Your task to perform on an android device: uninstall "Microsoft Excel" Image 0: 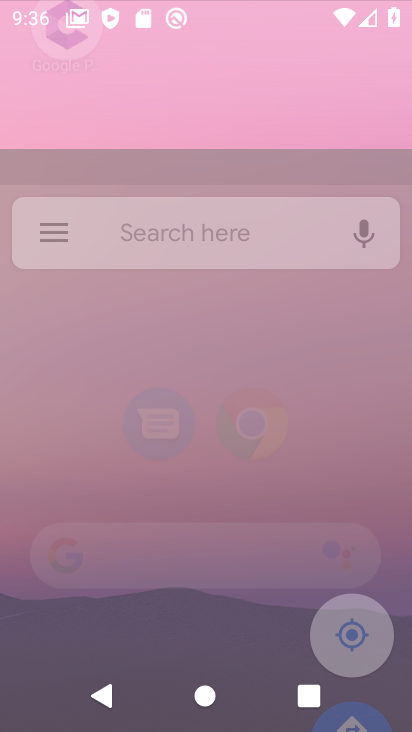
Step 0: click (352, 48)
Your task to perform on an android device: uninstall "Microsoft Excel" Image 1: 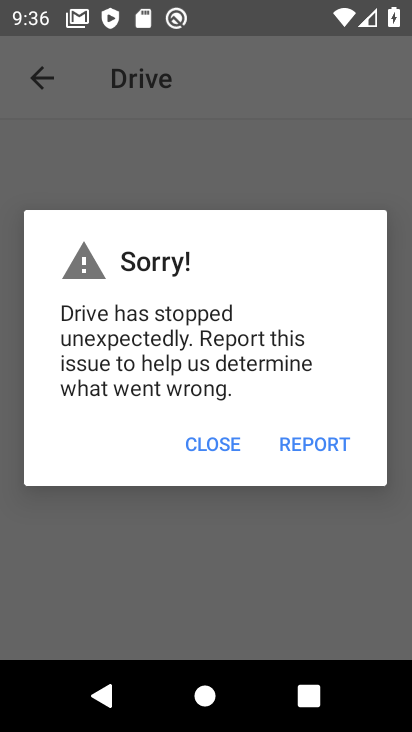
Step 1: drag from (130, 367) to (205, 63)
Your task to perform on an android device: uninstall "Microsoft Excel" Image 2: 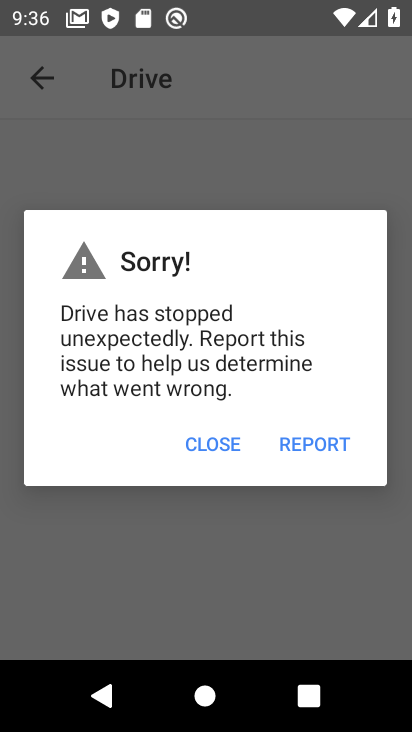
Step 2: drag from (175, 345) to (207, 139)
Your task to perform on an android device: uninstall "Microsoft Excel" Image 3: 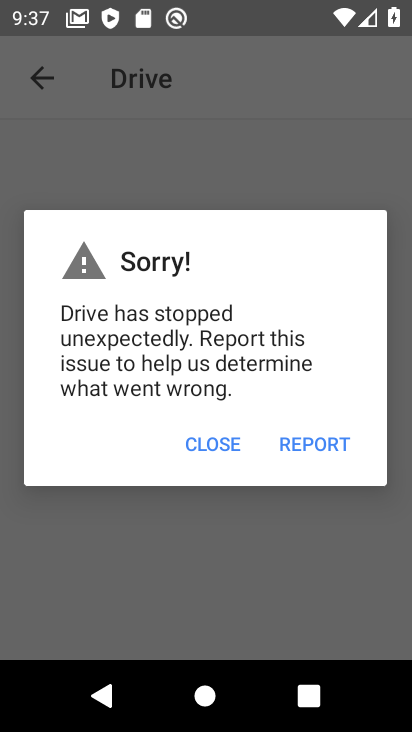
Step 3: drag from (224, 247) to (238, 134)
Your task to perform on an android device: uninstall "Microsoft Excel" Image 4: 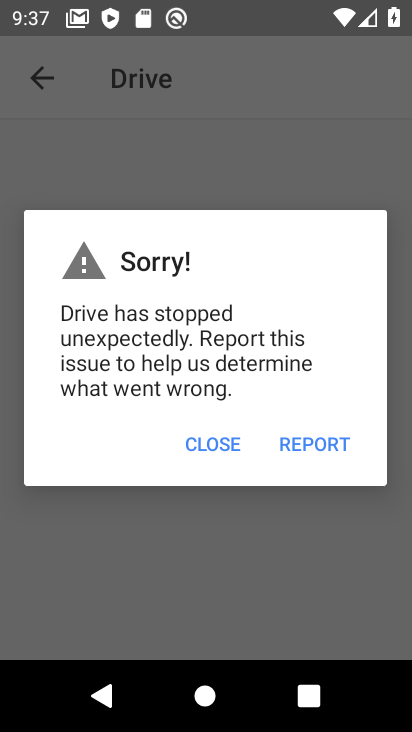
Step 4: press home button
Your task to perform on an android device: uninstall "Microsoft Excel" Image 5: 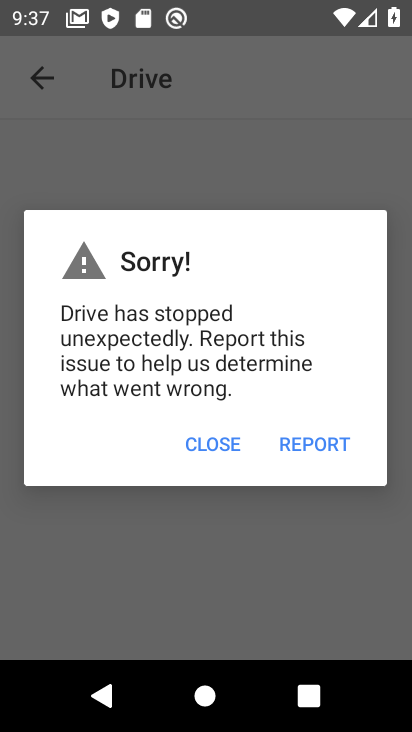
Step 5: drag from (237, 328) to (360, 72)
Your task to perform on an android device: uninstall "Microsoft Excel" Image 6: 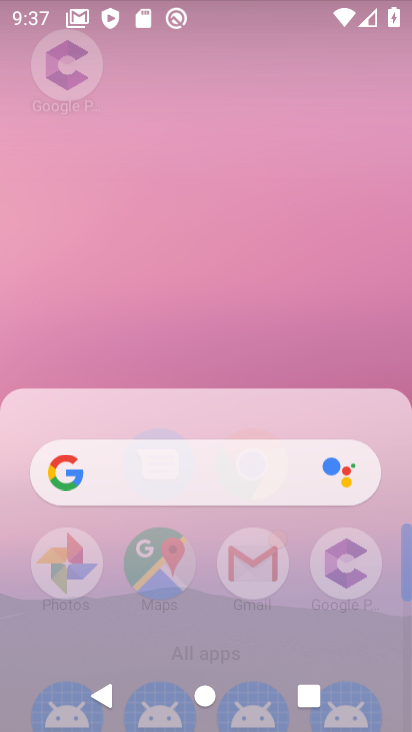
Step 6: drag from (261, 522) to (337, 114)
Your task to perform on an android device: uninstall "Microsoft Excel" Image 7: 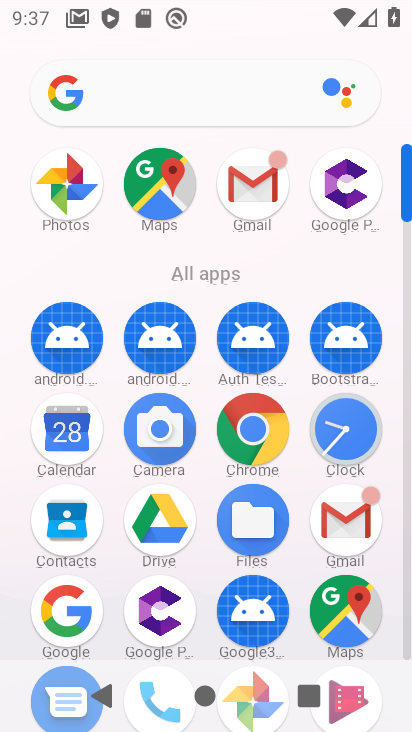
Step 7: drag from (198, 577) to (198, 161)
Your task to perform on an android device: uninstall "Microsoft Excel" Image 8: 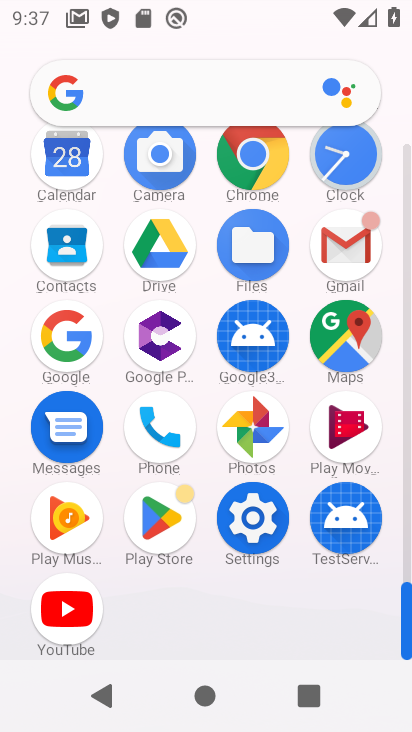
Step 8: click (151, 509)
Your task to perform on an android device: uninstall "Microsoft Excel" Image 9: 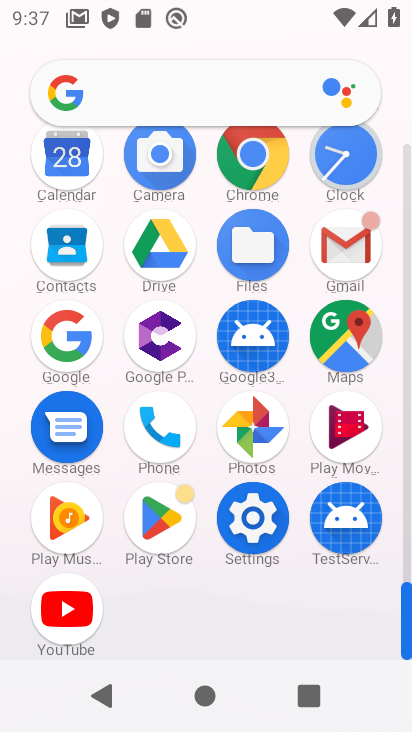
Step 9: click (150, 509)
Your task to perform on an android device: uninstall "Microsoft Excel" Image 10: 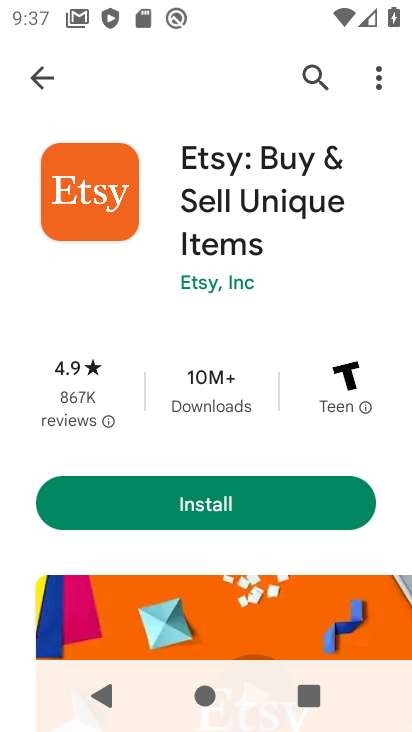
Step 10: click (321, 71)
Your task to perform on an android device: uninstall "Microsoft Excel" Image 11: 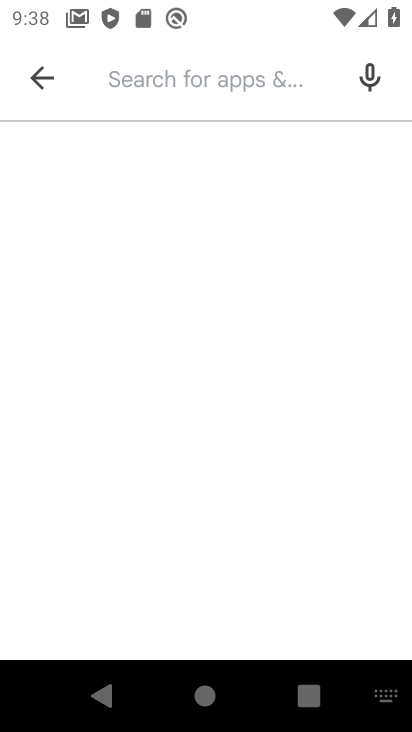
Step 11: type "Microsoft Excel"
Your task to perform on an android device: uninstall "Microsoft Excel" Image 12: 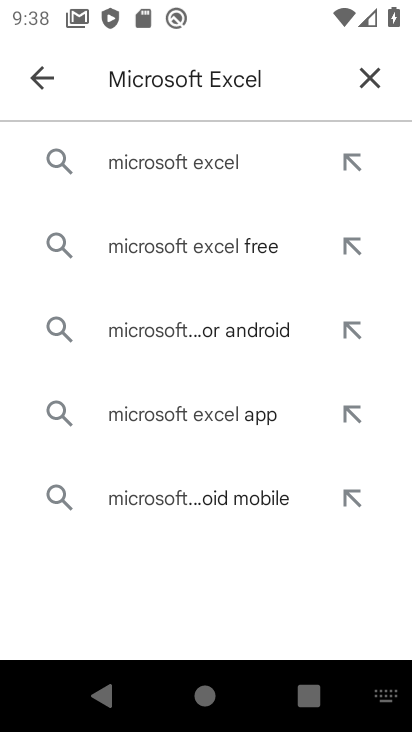
Step 12: click (137, 158)
Your task to perform on an android device: uninstall "Microsoft Excel" Image 13: 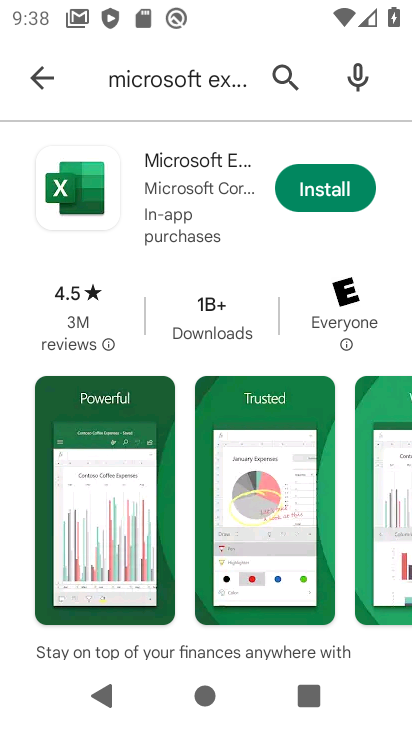
Step 13: click (141, 176)
Your task to perform on an android device: uninstall "Microsoft Excel" Image 14: 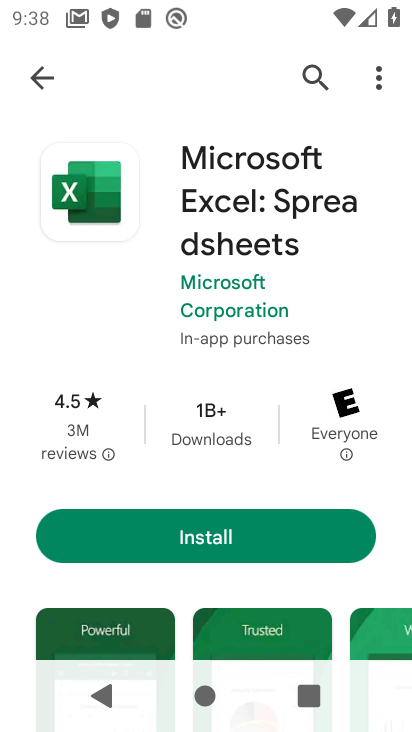
Step 14: task complete